Your task to perform on an android device: move a message to another label in the gmail app Image 0: 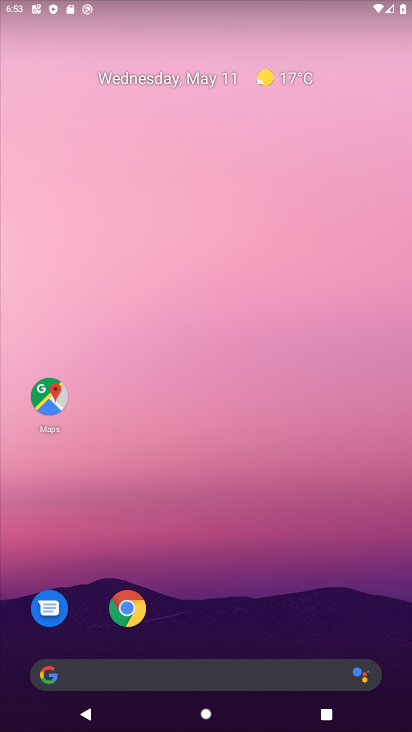
Step 0: drag from (280, 575) to (319, 128)
Your task to perform on an android device: move a message to another label in the gmail app Image 1: 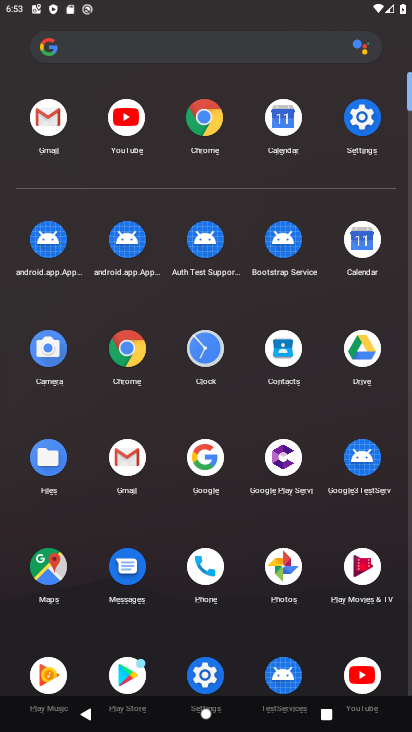
Step 1: click (53, 115)
Your task to perform on an android device: move a message to another label in the gmail app Image 2: 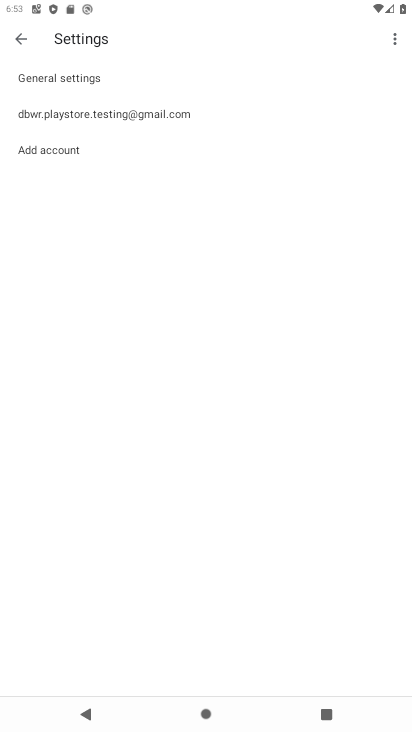
Step 2: click (33, 33)
Your task to perform on an android device: move a message to another label in the gmail app Image 3: 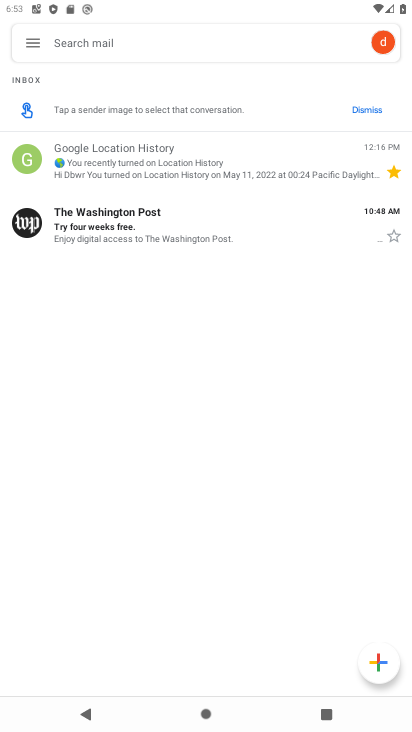
Step 3: click (121, 154)
Your task to perform on an android device: move a message to another label in the gmail app Image 4: 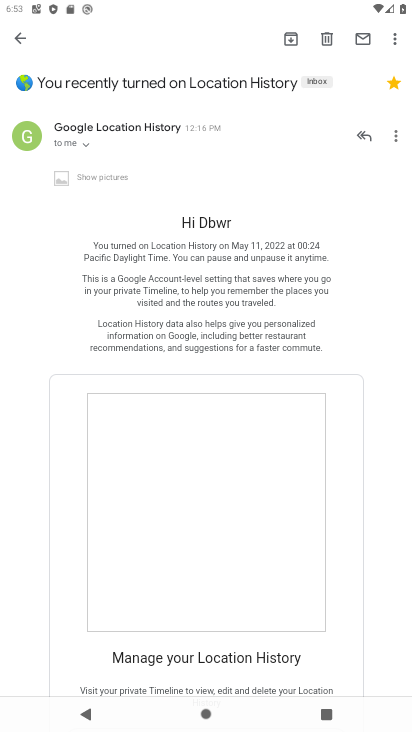
Step 4: click (392, 42)
Your task to perform on an android device: move a message to another label in the gmail app Image 5: 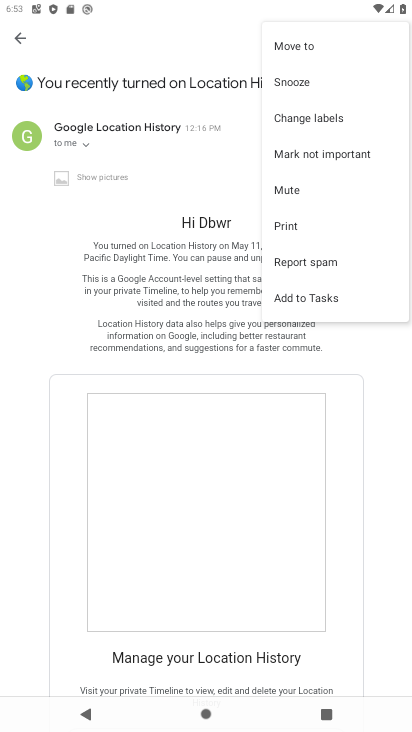
Step 5: click (323, 127)
Your task to perform on an android device: move a message to another label in the gmail app Image 6: 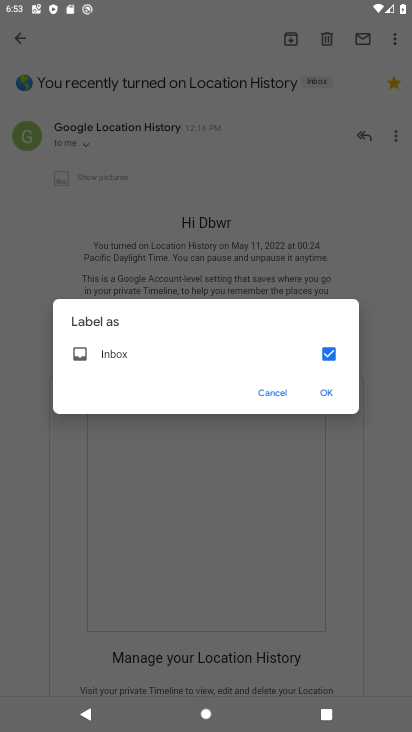
Step 6: click (320, 387)
Your task to perform on an android device: move a message to another label in the gmail app Image 7: 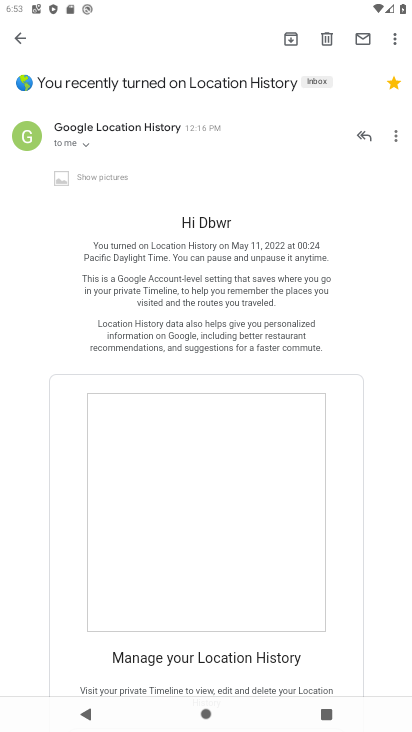
Step 7: task complete